Your task to perform on an android device: turn off wifi Image 0: 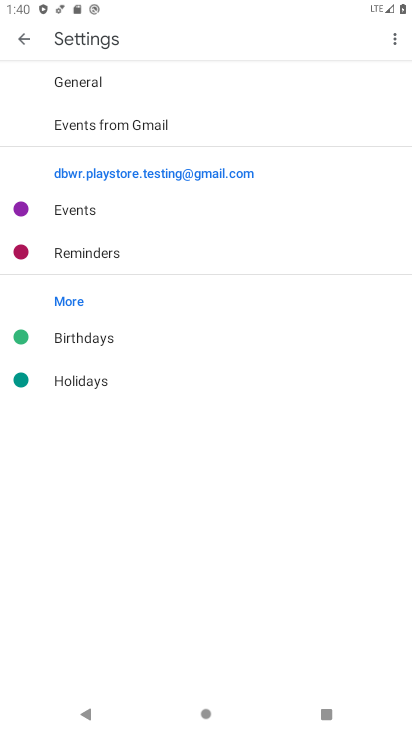
Step 0: press home button
Your task to perform on an android device: turn off wifi Image 1: 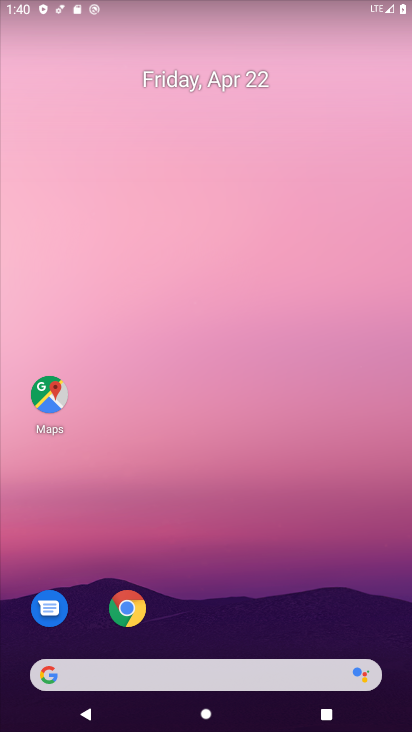
Step 1: drag from (281, 684) to (233, 194)
Your task to perform on an android device: turn off wifi Image 2: 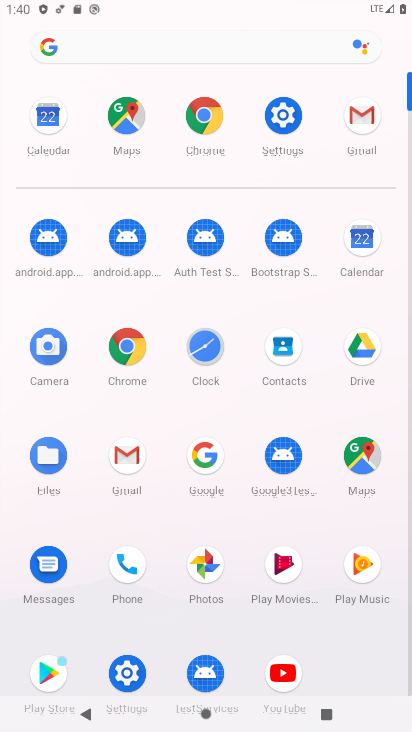
Step 2: click (283, 109)
Your task to perform on an android device: turn off wifi Image 3: 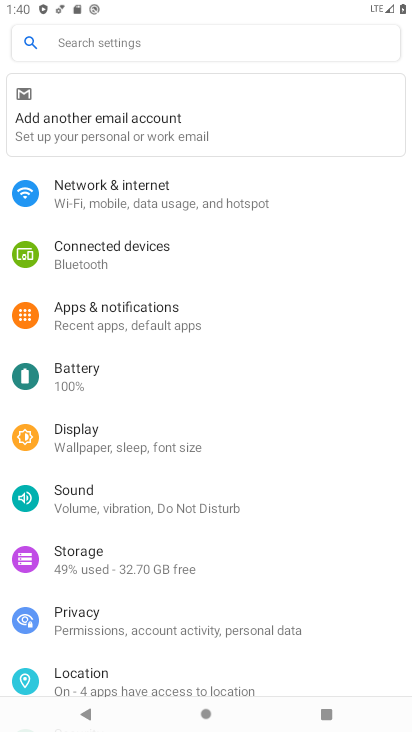
Step 3: click (143, 185)
Your task to perform on an android device: turn off wifi Image 4: 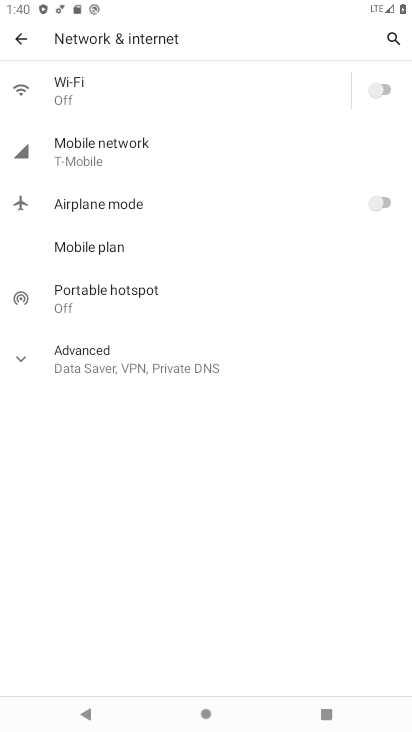
Step 4: click (123, 88)
Your task to perform on an android device: turn off wifi Image 5: 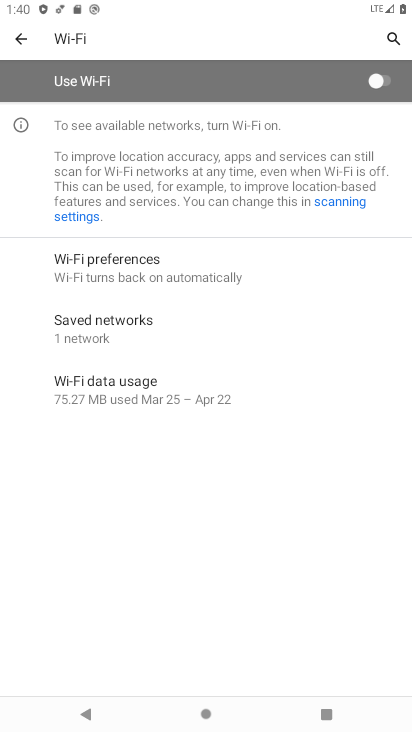
Step 5: click (377, 80)
Your task to perform on an android device: turn off wifi Image 6: 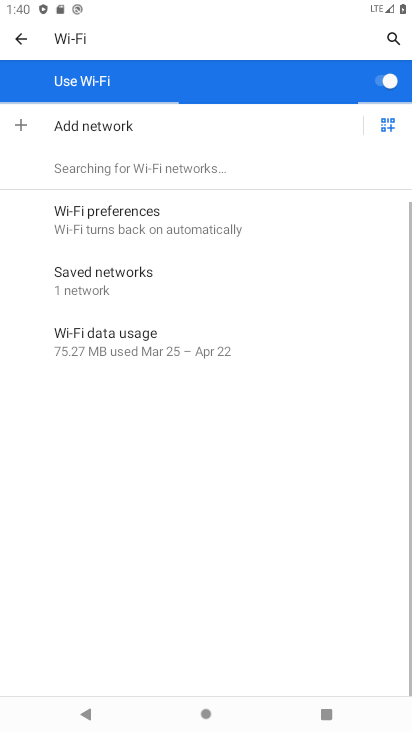
Step 6: click (362, 91)
Your task to perform on an android device: turn off wifi Image 7: 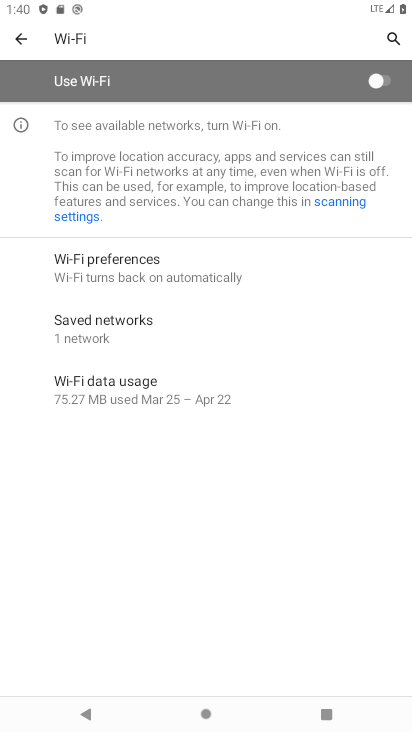
Step 7: task complete